Your task to perform on an android device: Search for dining room chairs on Crate & Barrel Image 0: 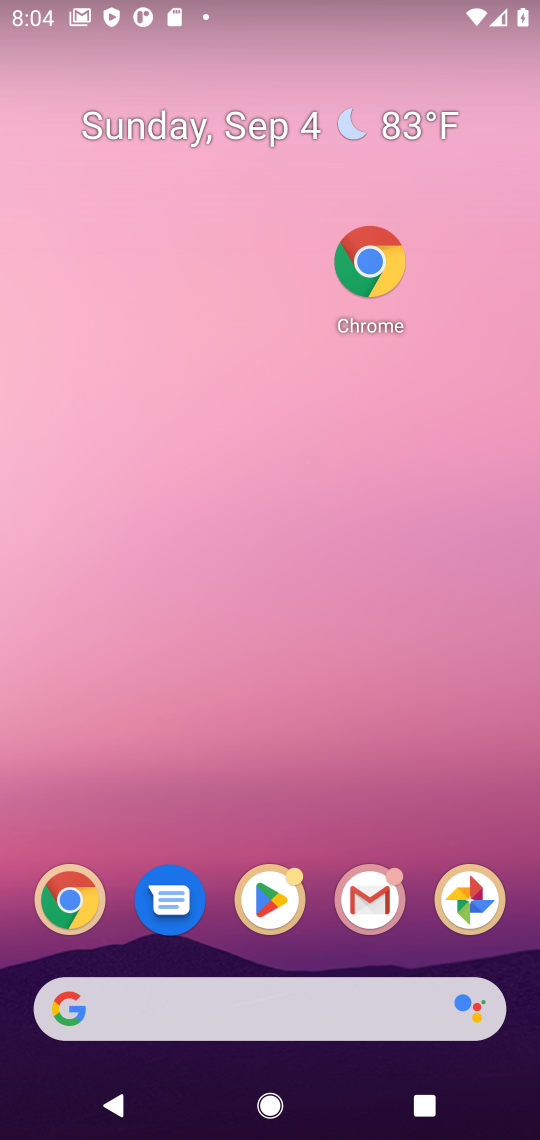
Step 0: click (365, 252)
Your task to perform on an android device: Search for dining room chairs on Crate & Barrel Image 1: 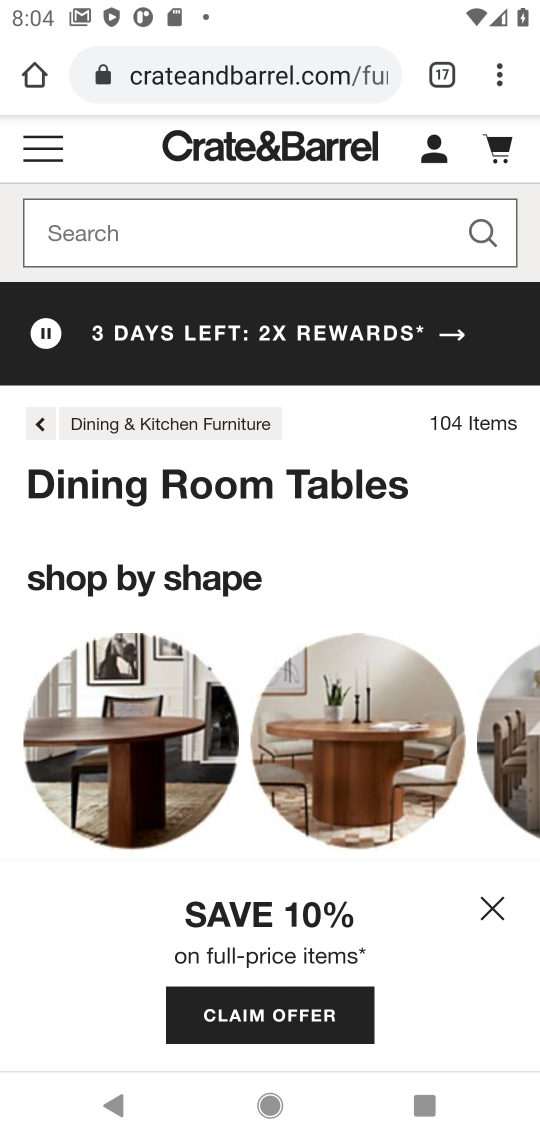
Step 1: click (365, 252)
Your task to perform on an android device: Search for dining room chairs on Crate & Barrel Image 2: 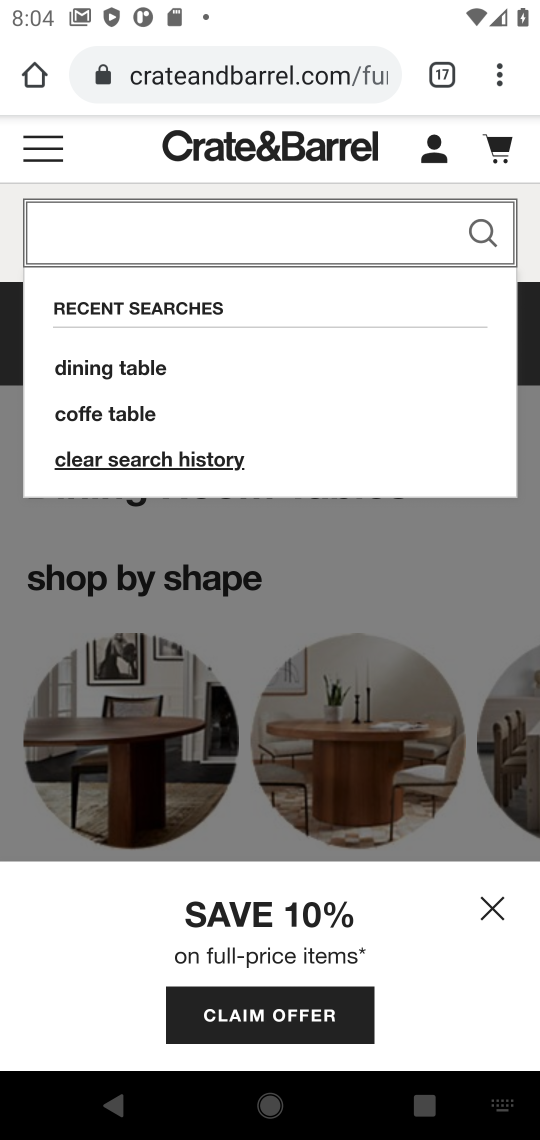
Step 2: type "dinning room chair"
Your task to perform on an android device: Search for dining room chairs on Crate & Barrel Image 3: 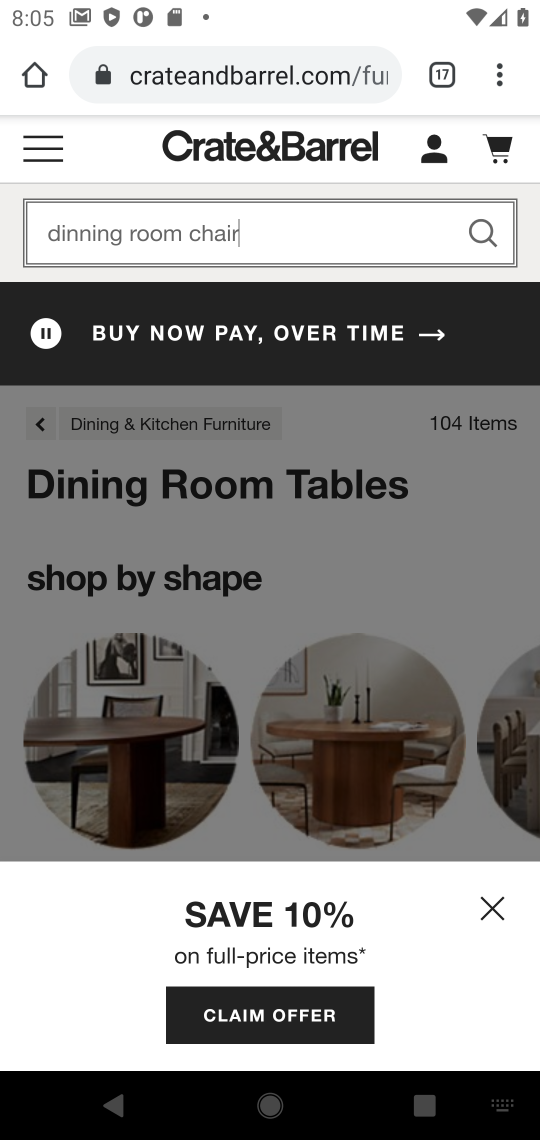
Step 3: click (488, 233)
Your task to perform on an android device: Search for dining room chairs on Crate & Barrel Image 4: 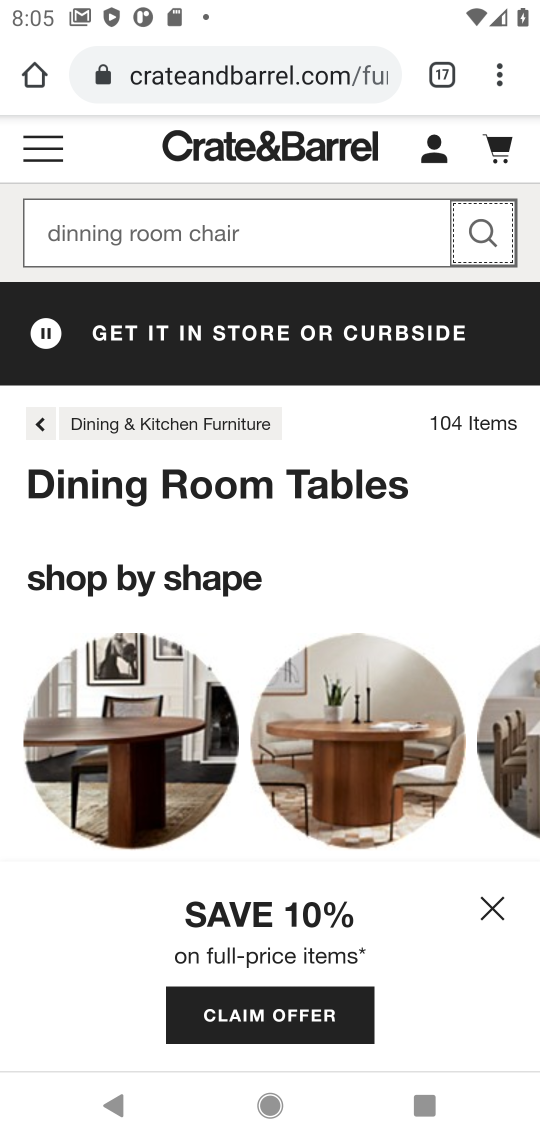
Step 4: click (488, 233)
Your task to perform on an android device: Search for dining room chairs on Crate & Barrel Image 5: 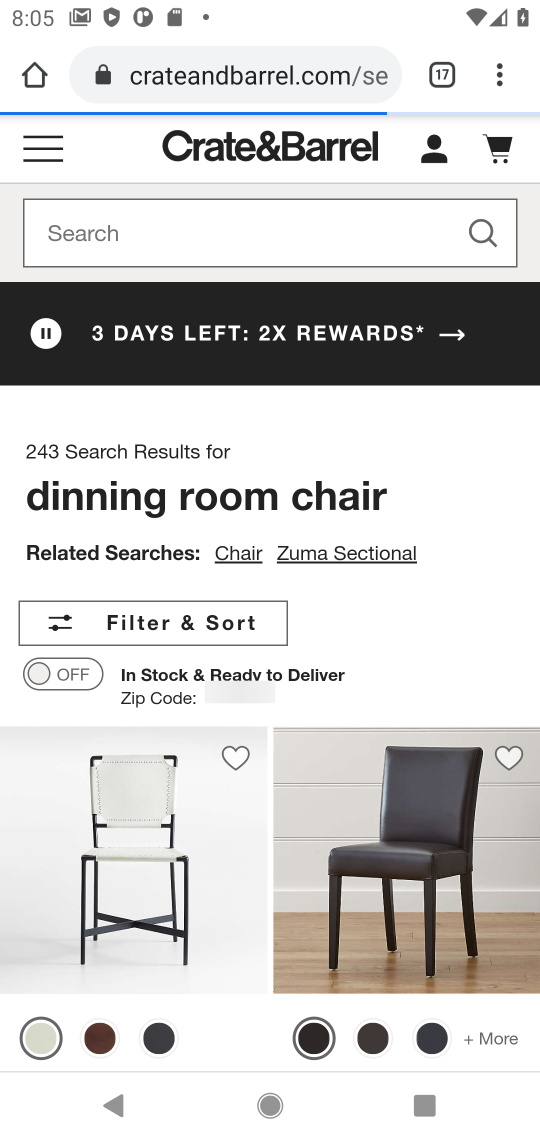
Step 5: click (488, 233)
Your task to perform on an android device: Search for dining room chairs on Crate & Barrel Image 6: 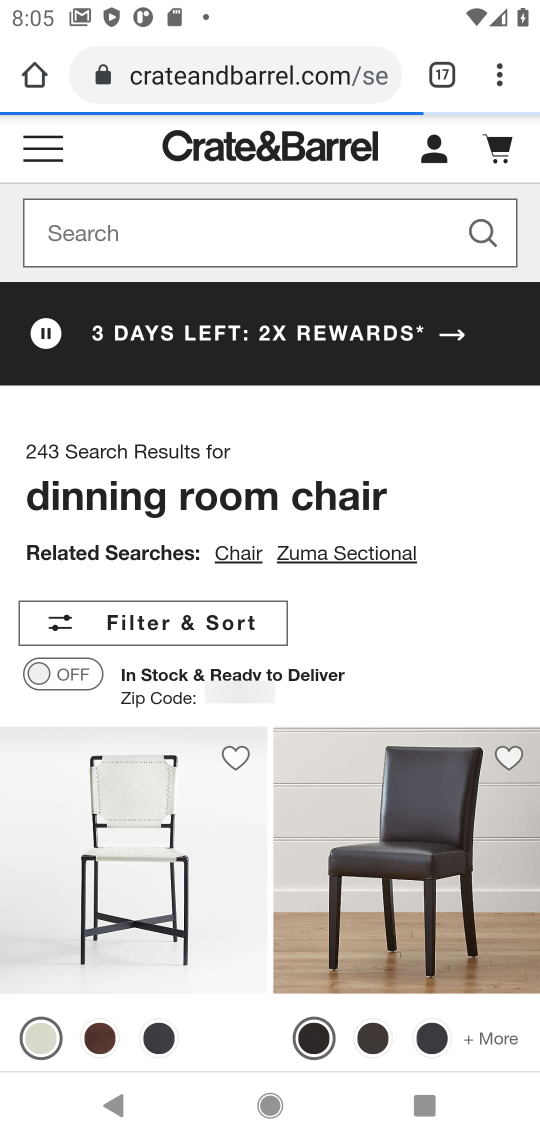
Step 6: task complete